Your task to perform on an android device: Turn off the flashlight Image 0: 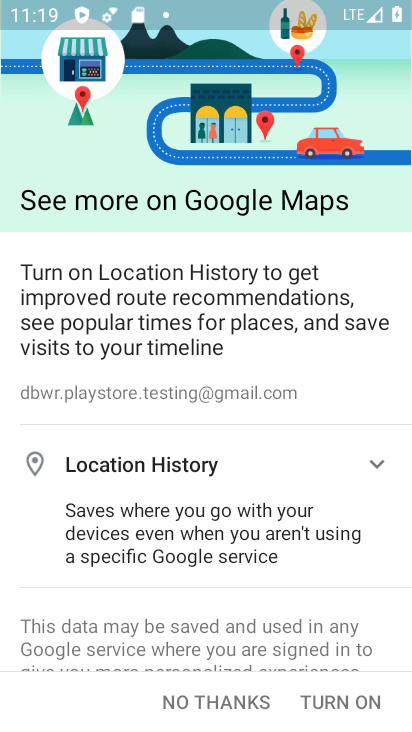
Step 0: press home button
Your task to perform on an android device: Turn off the flashlight Image 1: 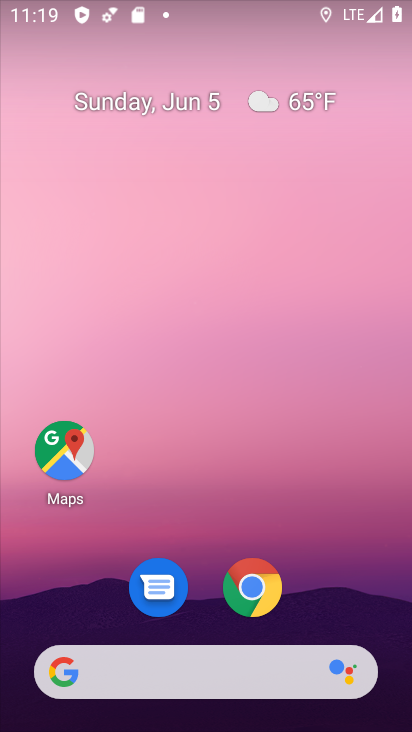
Step 1: drag from (190, 632) to (207, 195)
Your task to perform on an android device: Turn off the flashlight Image 2: 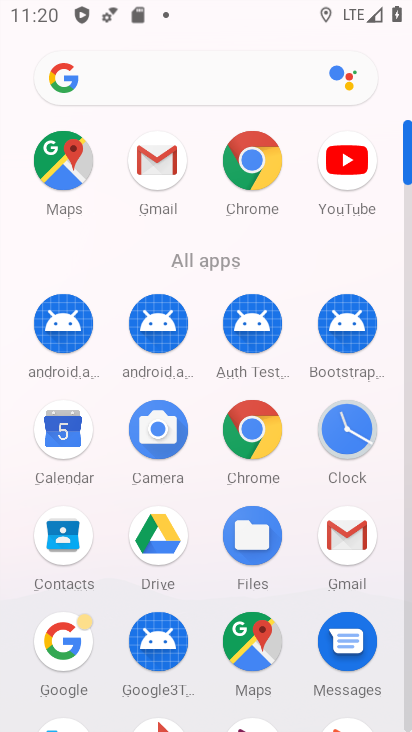
Step 2: drag from (127, 594) to (189, 205)
Your task to perform on an android device: Turn off the flashlight Image 3: 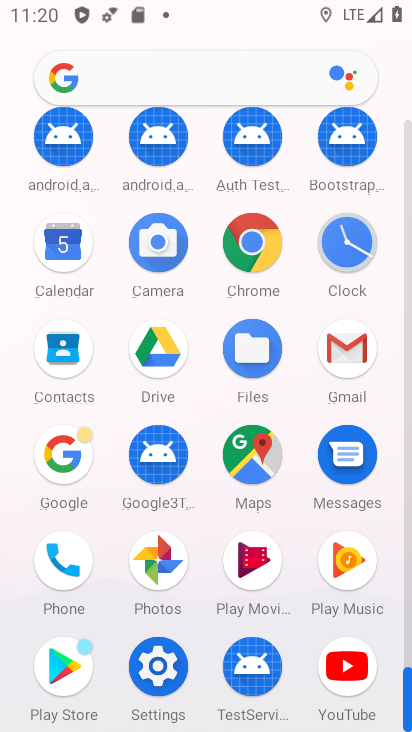
Step 3: click (132, 682)
Your task to perform on an android device: Turn off the flashlight Image 4: 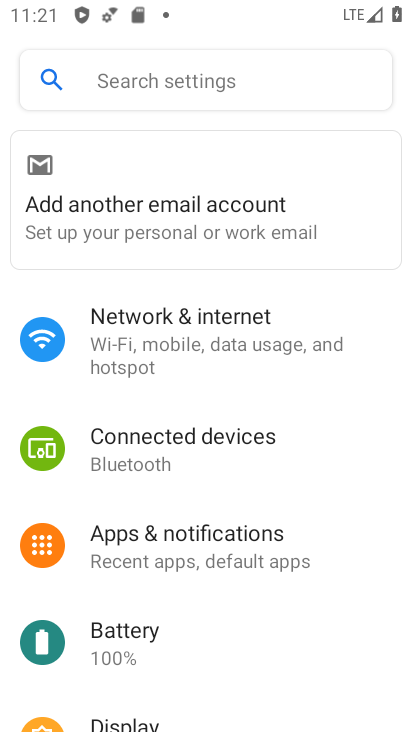
Step 4: task complete